Your task to perform on an android device: Open the calendar app, open the side menu, and click the "Day" option Image 0: 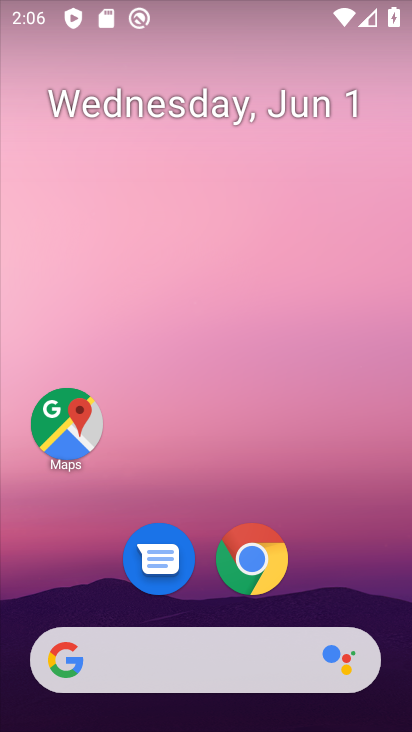
Step 0: press home button
Your task to perform on an android device: Open the calendar app, open the side menu, and click the "Day" option Image 1: 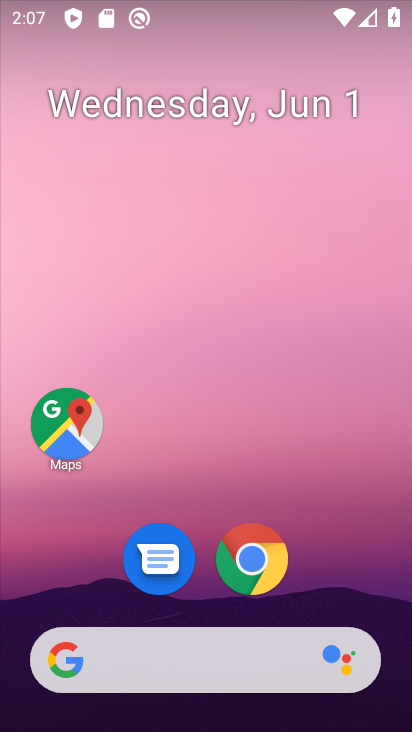
Step 1: drag from (336, 605) to (334, 255)
Your task to perform on an android device: Open the calendar app, open the side menu, and click the "Day" option Image 2: 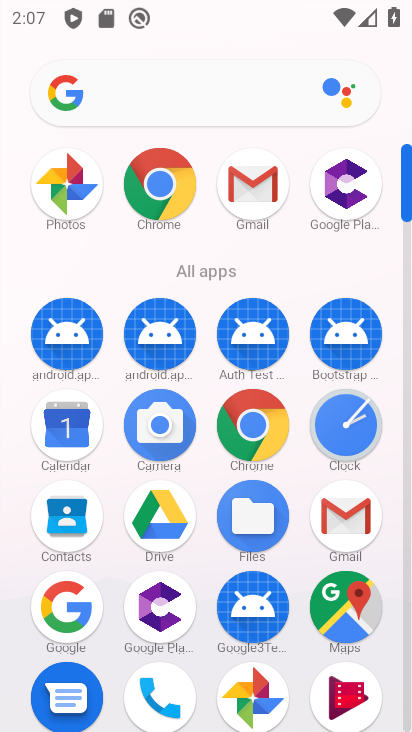
Step 2: click (72, 435)
Your task to perform on an android device: Open the calendar app, open the side menu, and click the "Day" option Image 3: 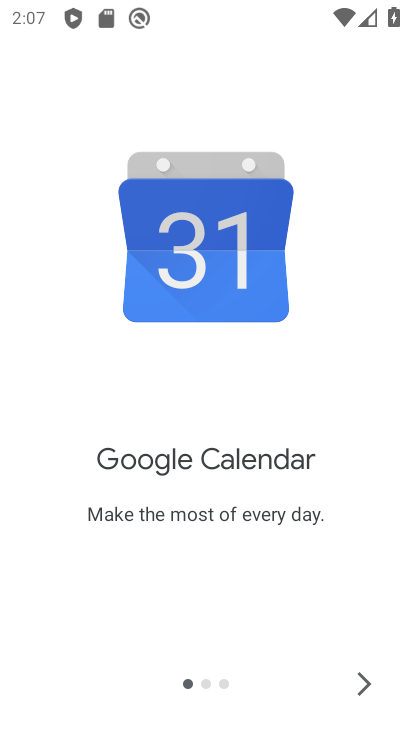
Step 3: click (366, 686)
Your task to perform on an android device: Open the calendar app, open the side menu, and click the "Day" option Image 4: 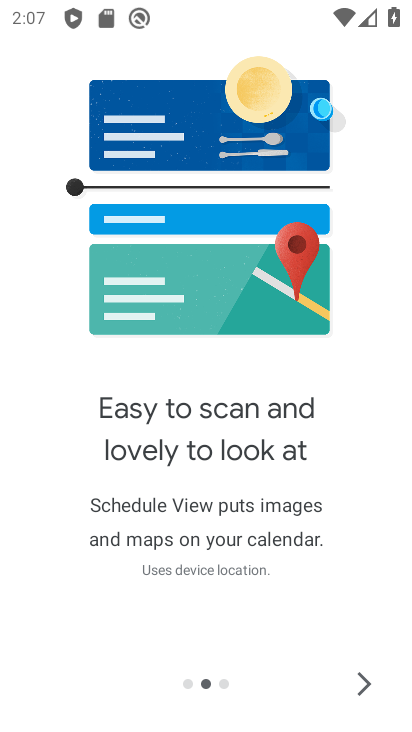
Step 4: click (366, 686)
Your task to perform on an android device: Open the calendar app, open the side menu, and click the "Day" option Image 5: 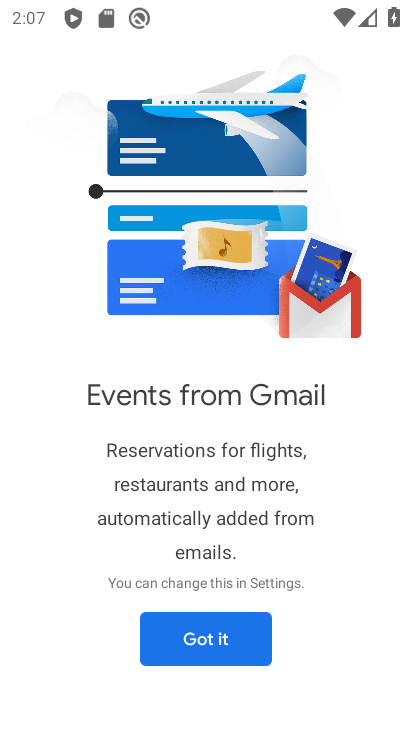
Step 5: click (212, 630)
Your task to perform on an android device: Open the calendar app, open the side menu, and click the "Day" option Image 6: 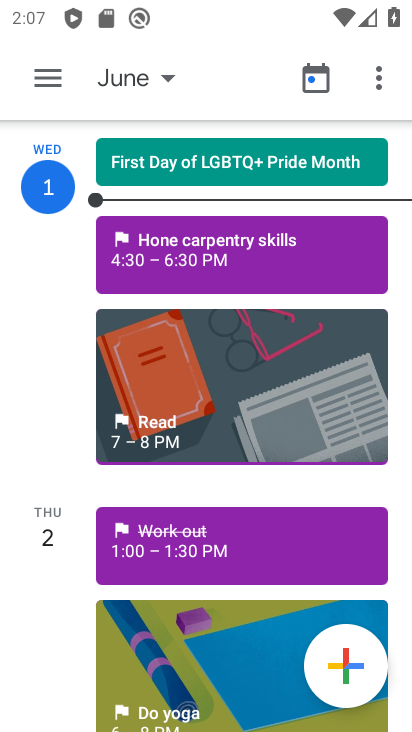
Step 6: click (49, 70)
Your task to perform on an android device: Open the calendar app, open the side menu, and click the "Day" option Image 7: 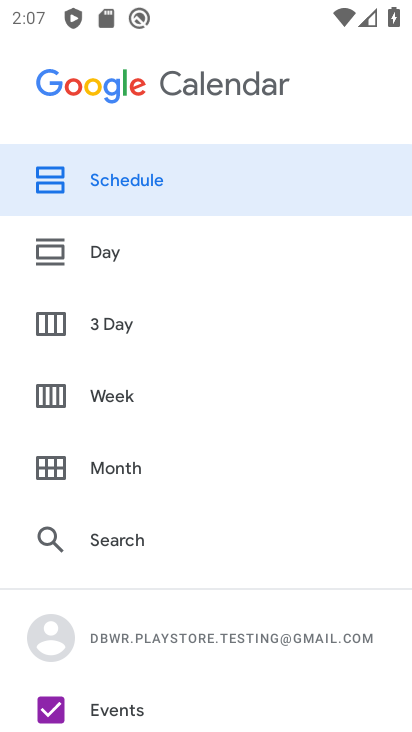
Step 7: click (106, 260)
Your task to perform on an android device: Open the calendar app, open the side menu, and click the "Day" option Image 8: 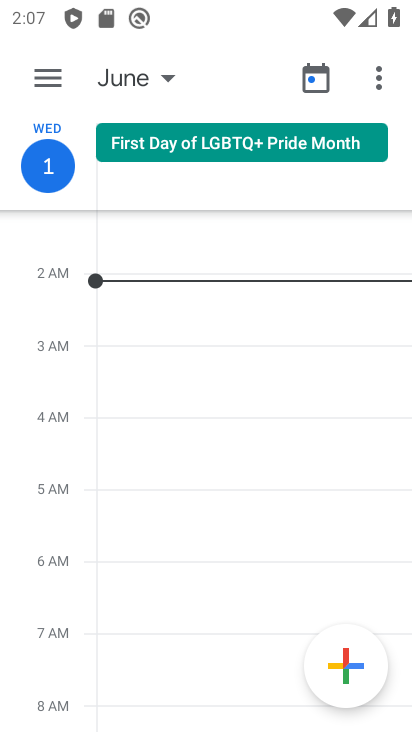
Step 8: task complete